Your task to perform on an android device: open the mobile data screen to see how much data has been used Image 0: 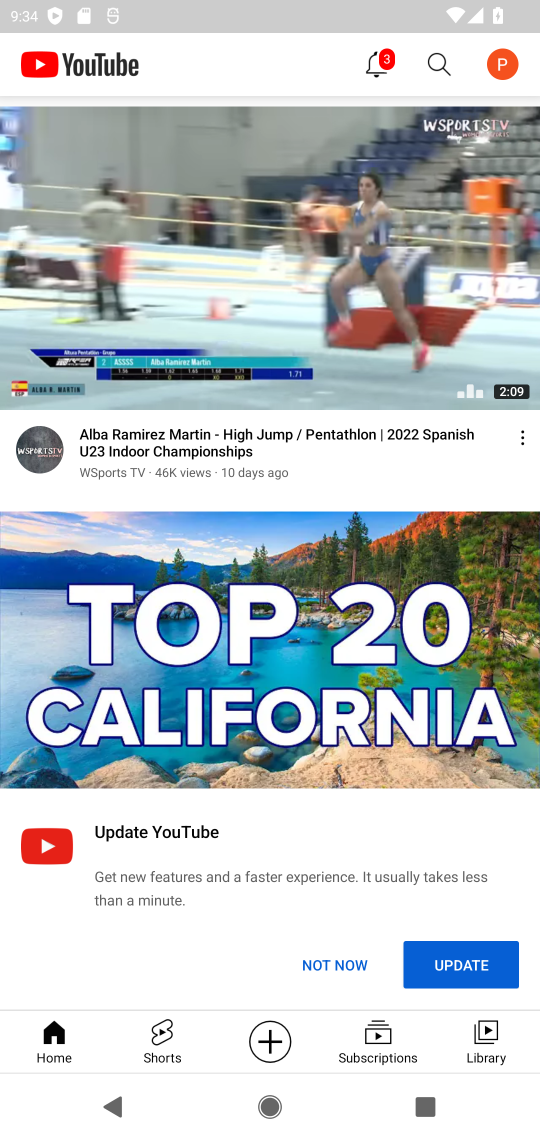
Step 0: press home button
Your task to perform on an android device: open the mobile data screen to see how much data has been used Image 1: 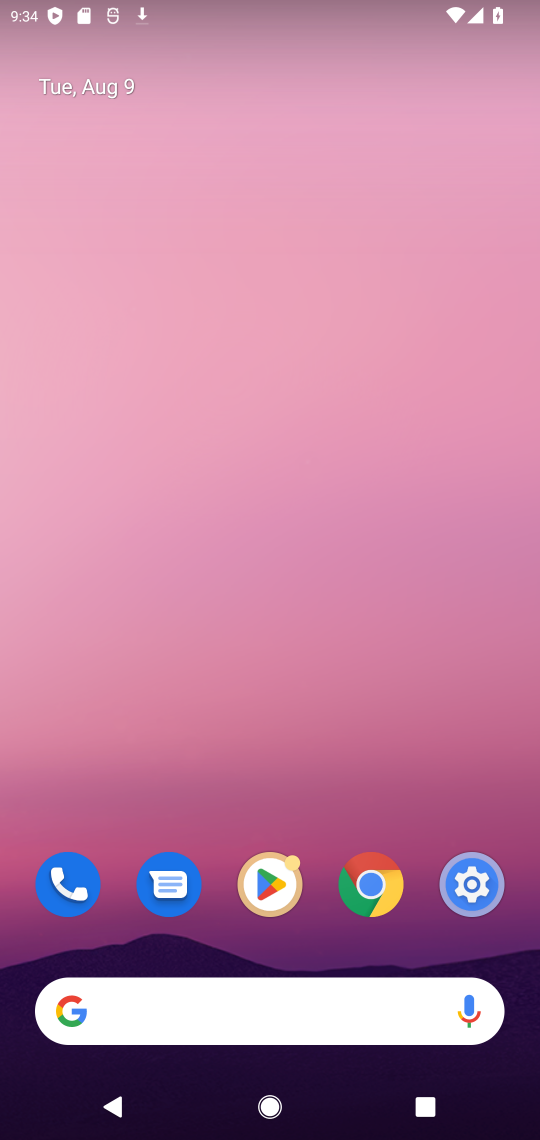
Step 1: drag from (231, 1025) to (247, 136)
Your task to perform on an android device: open the mobile data screen to see how much data has been used Image 2: 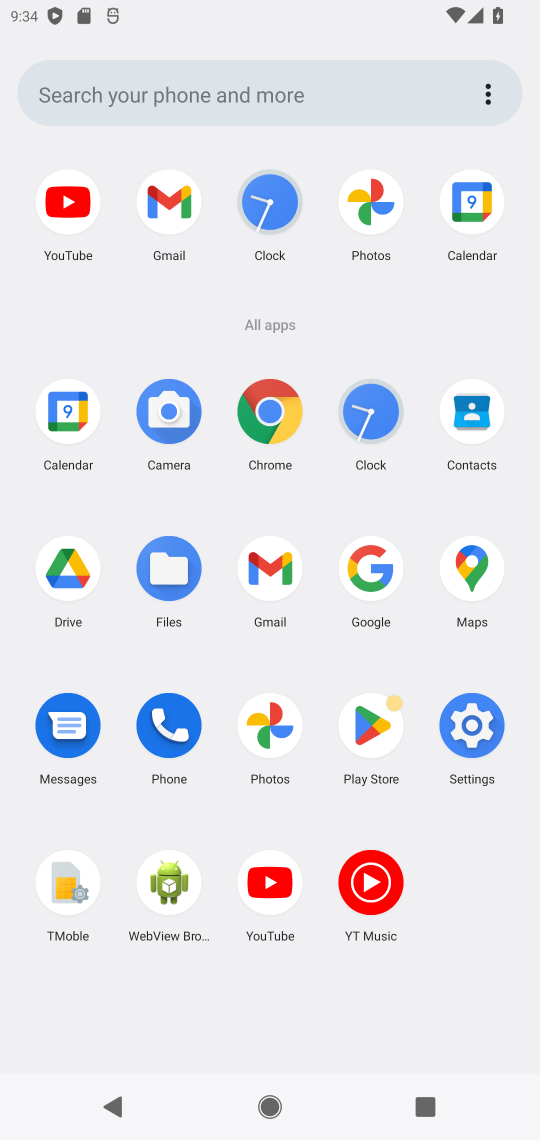
Step 2: click (477, 724)
Your task to perform on an android device: open the mobile data screen to see how much data has been used Image 3: 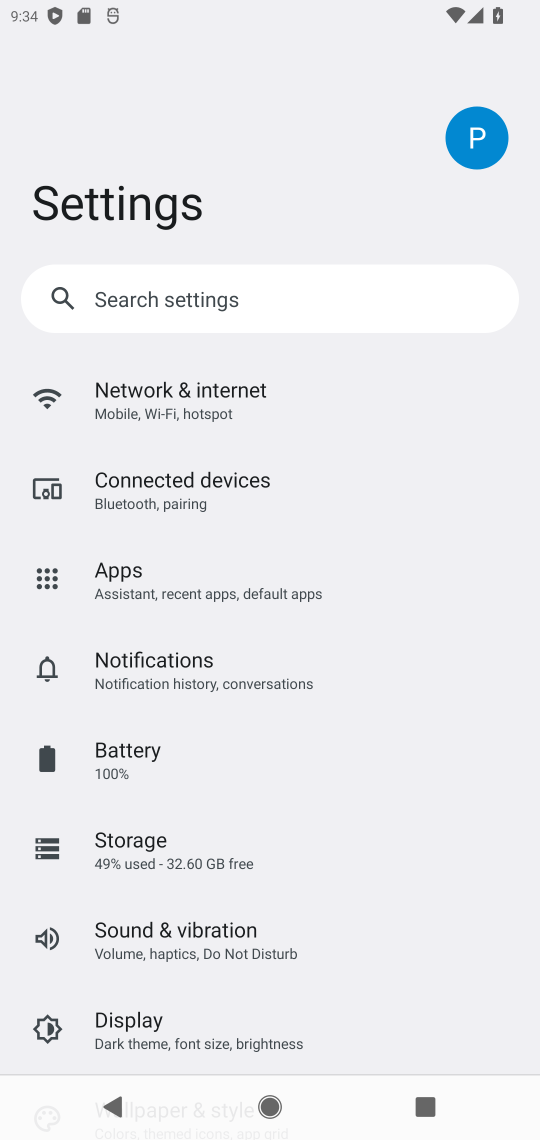
Step 3: click (180, 411)
Your task to perform on an android device: open the mobile data screen to see how much data has been used Image 4: 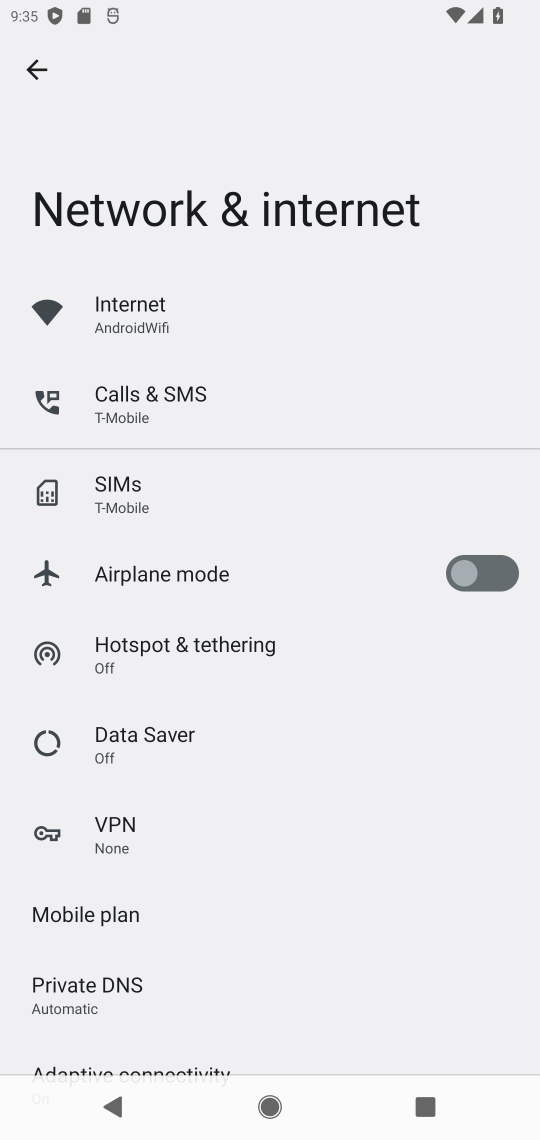
Step 4: click (140, 323)
Your task to perform on an android device: open the mobile data screen to see how much data has been used Image 5: 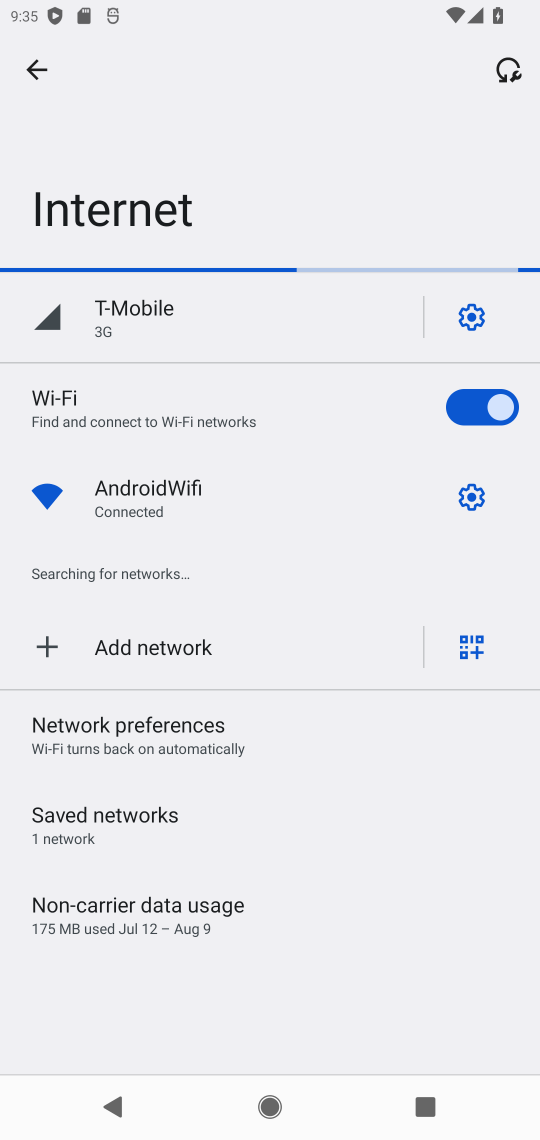
Step 5: click (472, 319)
Your task to perform on an android device: open the mobile data screen to see how much data has been used Image 6: 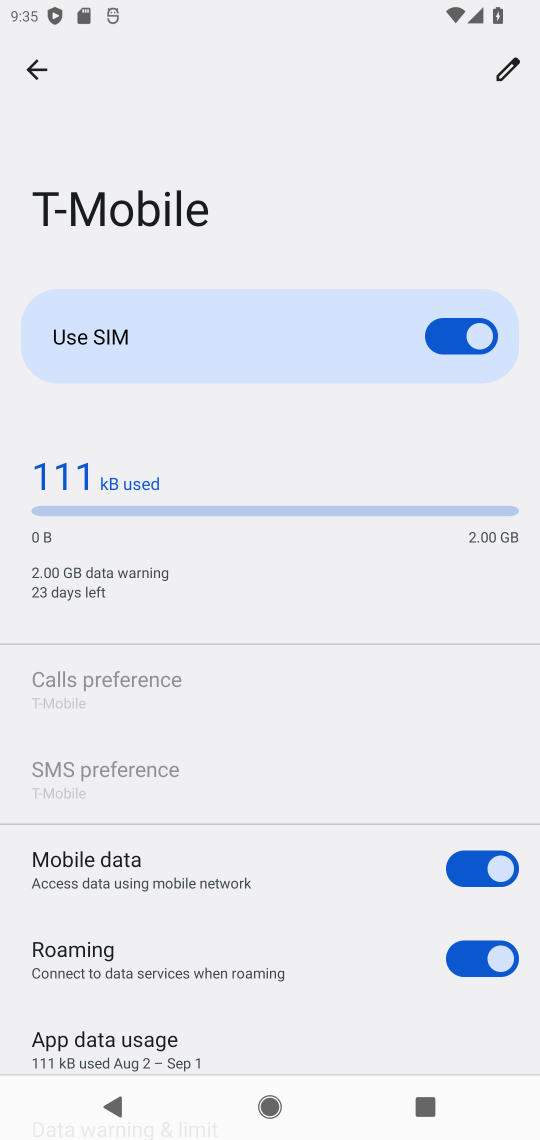
Step 6: task complete